Your task to perform on an android device: turn off priority inbox in the gmail app Image 0: 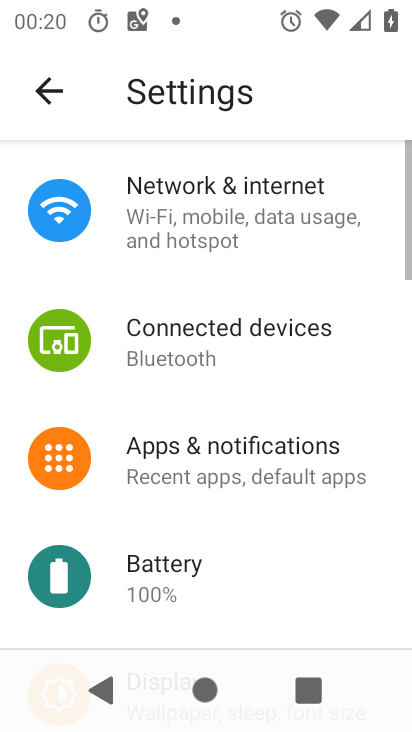
Step 0: press home button
Your task to perform on an android device: turn off priority inbox in the gmail app Image 1: 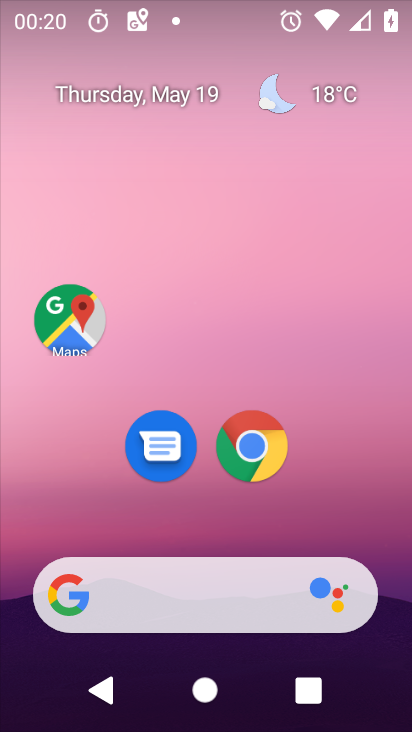
Step 1: drag from (163, 612) to (293, 210)
Your task to perform on an android device: turn off priority inbox in the gmail app Image 2: 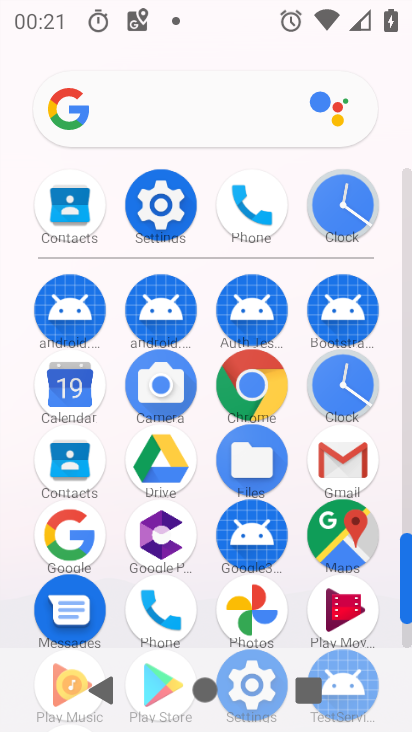
Step 2: click (337, 468)
Your task to perform on an android device: turn off priority inbox in the gmail app Image 3: 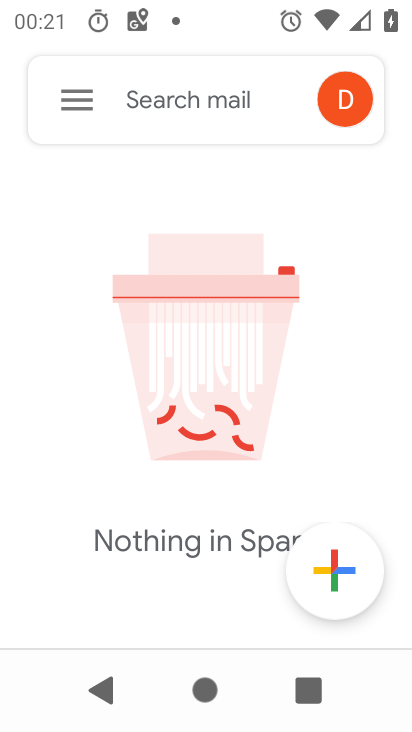
Step 3: click (87, 107)
Your task to perform on an android device: turn off priority inbox in the gmail app Image 4: 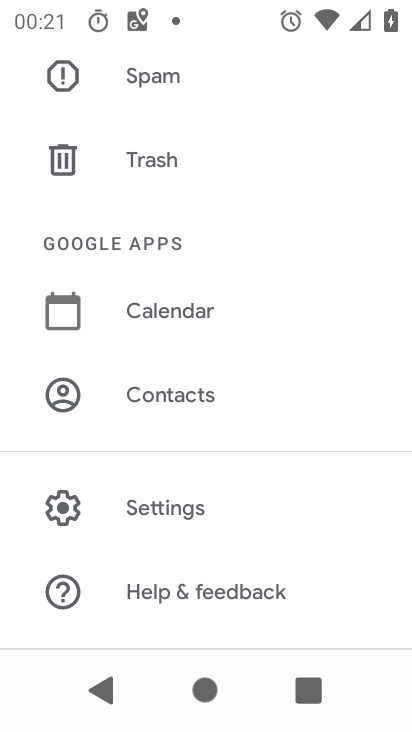
Step 4: click (156, 498)
Your task to perform on an android device: turn off priority inbox in the gmail app Image 5: 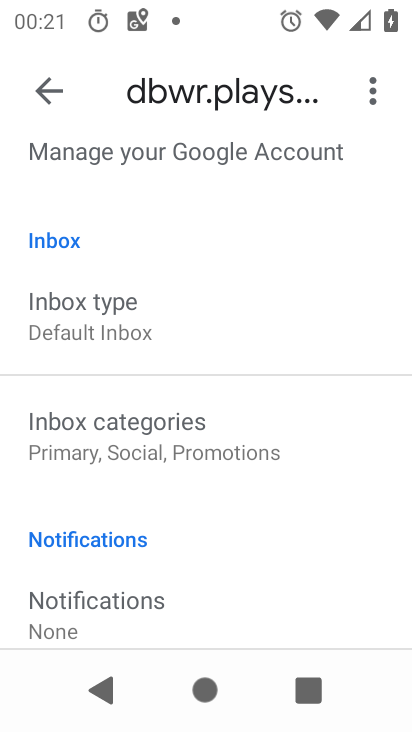
Step 5: click (125, 323)
Your task to perform on an android device: turn off priority inbox in the gmail app Image 6: 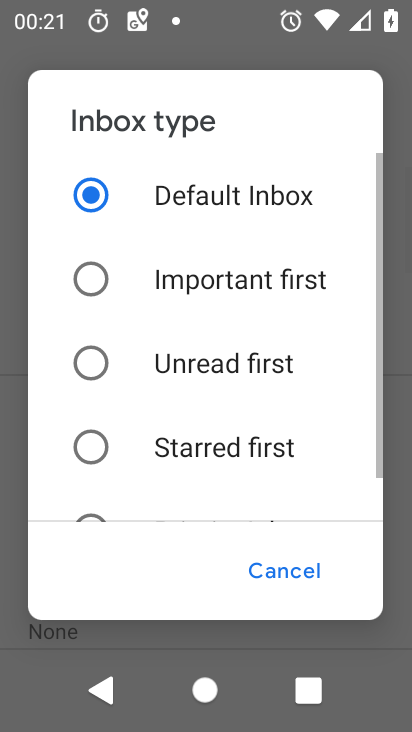
Step 6: task complete